Your task to perform on an android device: Search for pizza restaurants on Maps Image 0: 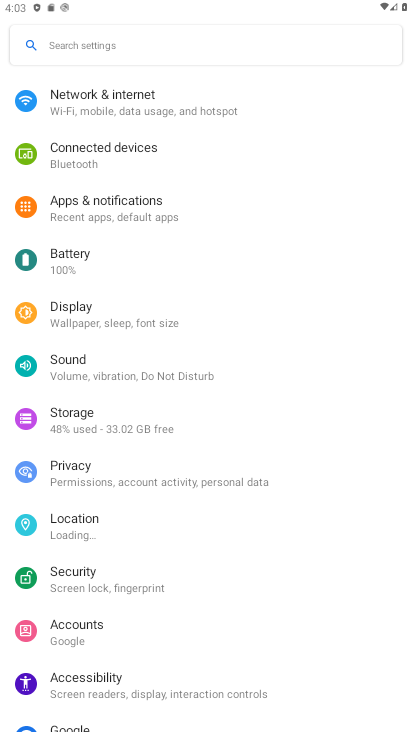
Step 0: drag from (230, 539) to (179, 223)
Your task to perform on an android device: Search for pizza restaurants on Maps Image 1: 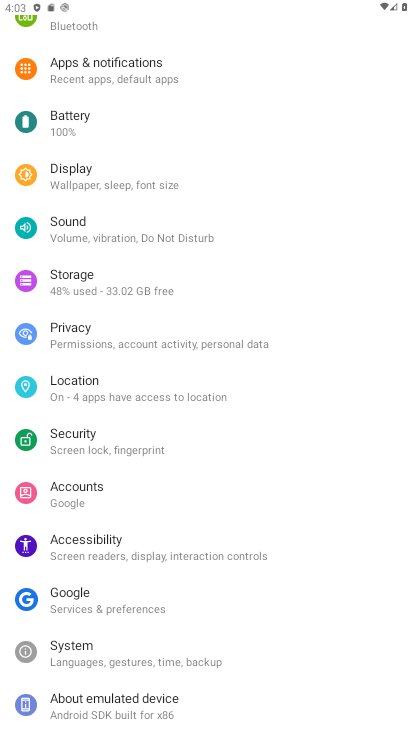
Step 1: press back button
Your task to perform on an android device: Search for pizza restaurants on Maps Image 2: 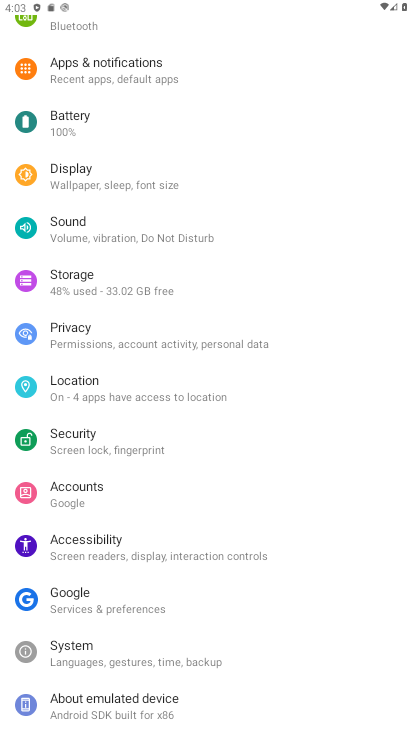
Step 2: press back button
Your task to perform on an android device: Search for pizza restaurants on Maps Image 3: 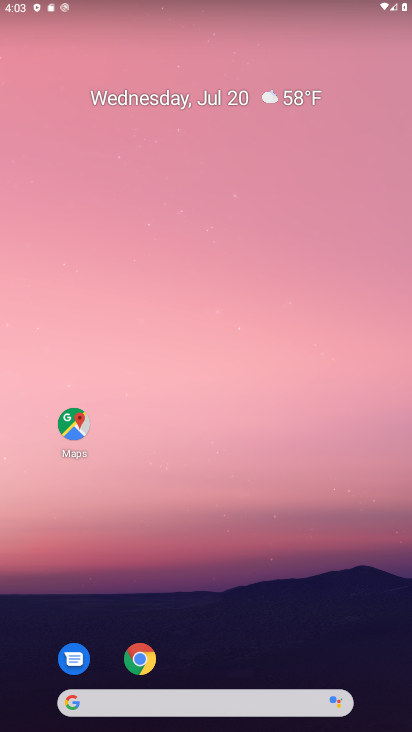
Step 3: drag from (212, 610) to (168, 121)
Your task to perform on an android device: Search for pizza restaurants on Maps Image 4: 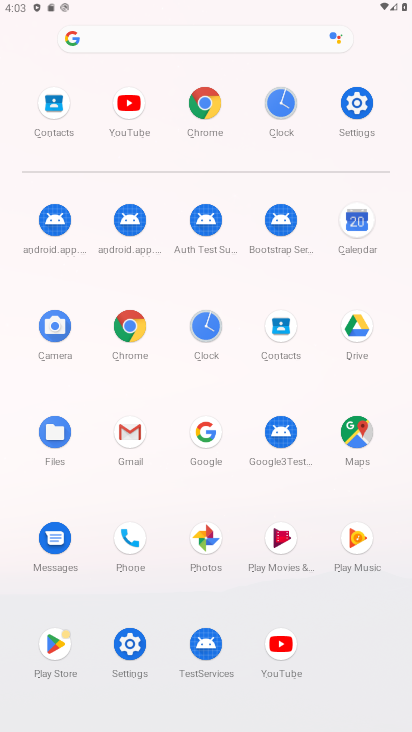
Step 4: click (354, 442)
Your task to perform on an android device: Search for pizza restaurants on Maps Image 5: 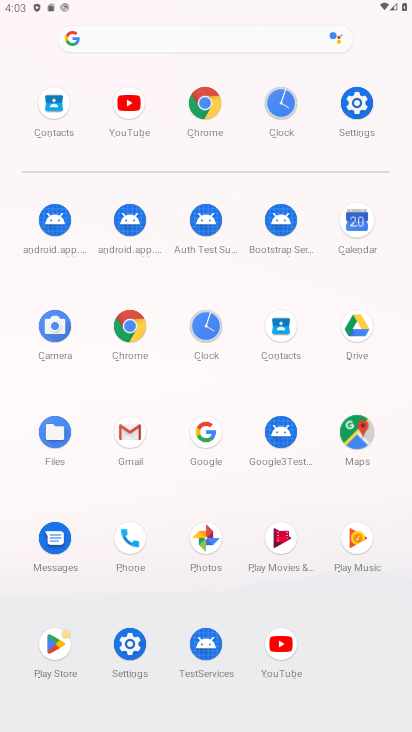
Step 5: click (360, 437)
Your task to perform on an android device: Search for pizza restaurants on Maps Image 6: 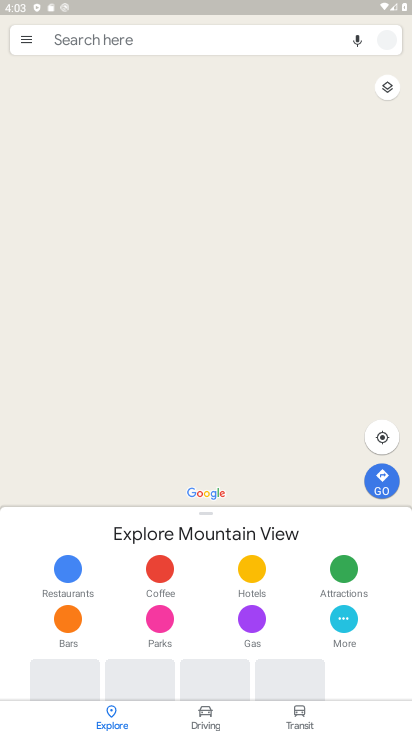
Step 6: click (74, 30)
Your task to perform on an android device: Search for pizza restaurants on Maps Image 7: 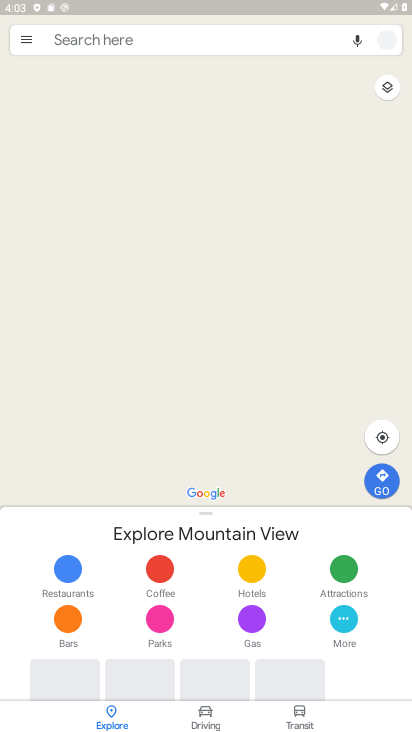
Step 7: click (74, 30)
Your task to perform on an android device: Search for pizza restaurants on Maps Image 8: 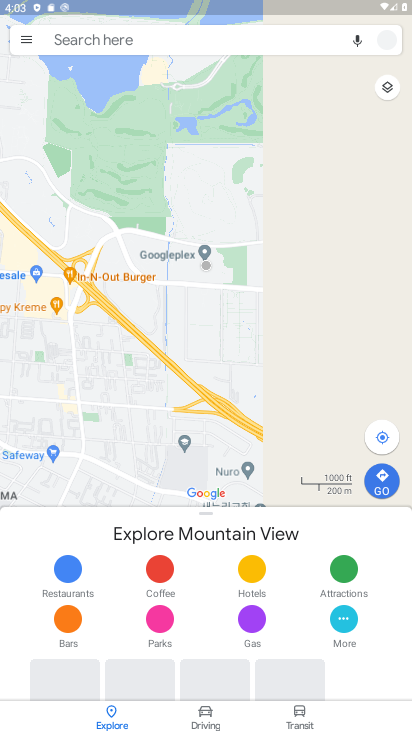
Step 8: click (70, 28)
Your task to perform on an android device: Search for pizza restaurants on Maps Image 9: 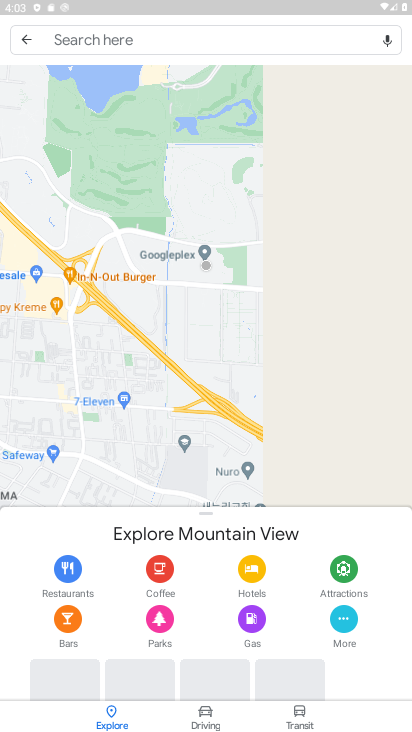
Step 9: click (71, 38)
Your task to perform on an android device: Search for pizza restaurants on Maps Image 10: 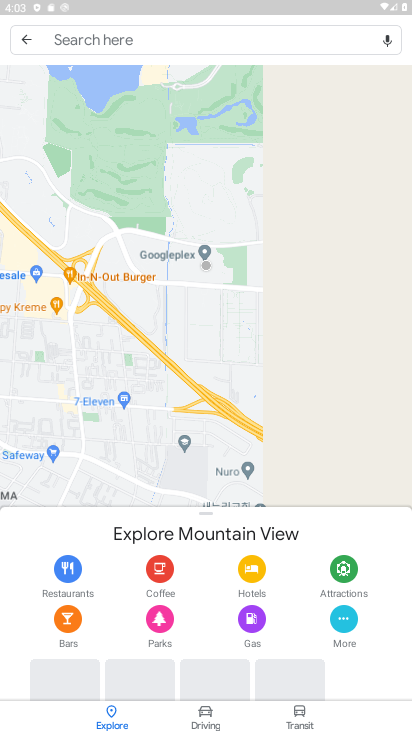
Step 10: click (74, 38)
Your task to perform on an android device: Search for pizza restaurants on Maps Image 11: 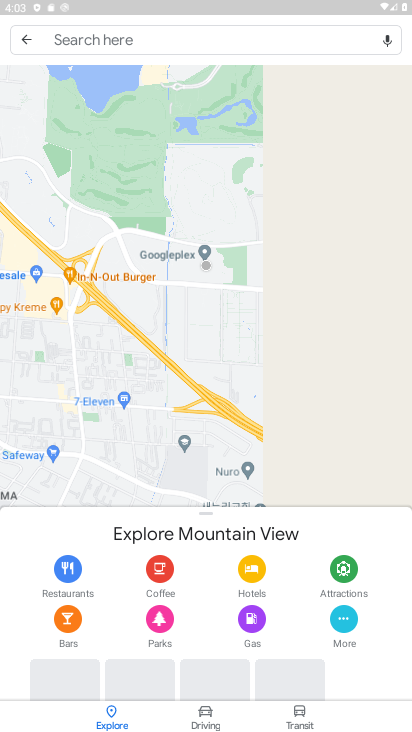
Step 11: click (76, 37)
Your task to perform on an android device: Search for pizza restaurants on Maps Image 12: 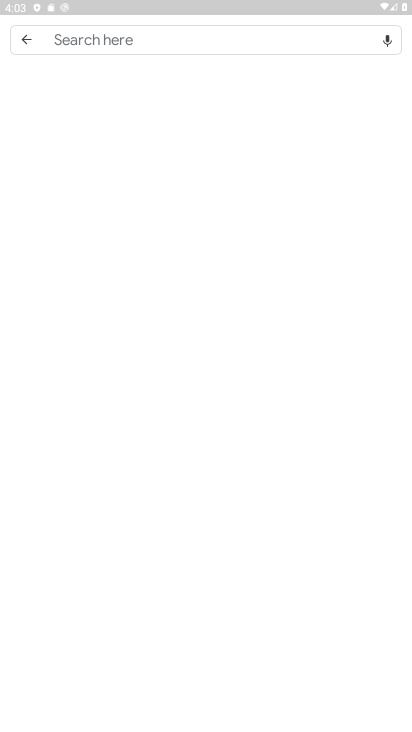
Step 12: click (71, 43)
Your task to perform on an android device: Search for pizza restaurants on Maps Image 13: 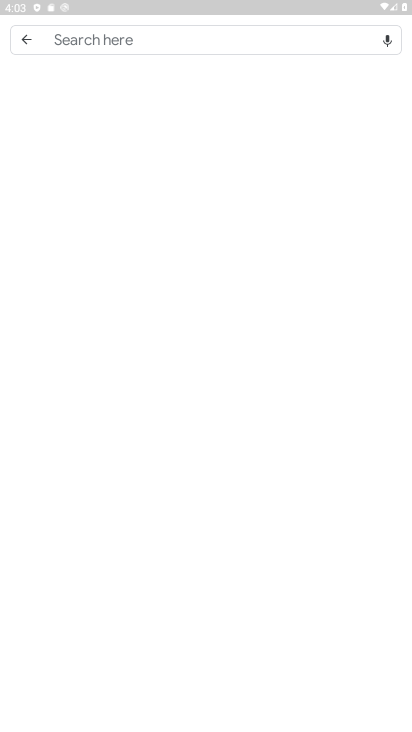
Step 13: click (65, 42)
Your task to perform on an android device: Search for pizza restaurants on Maps Image 14: 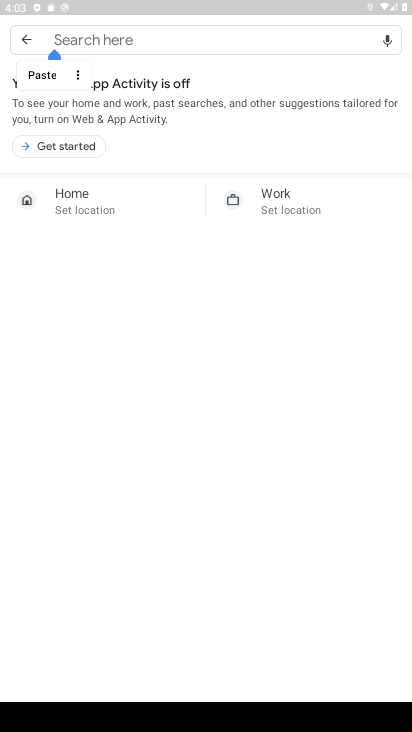
Step 14: click (72, 41)
Your task to perform on an android device: Search for pizza restaurants on Maps Image 15: 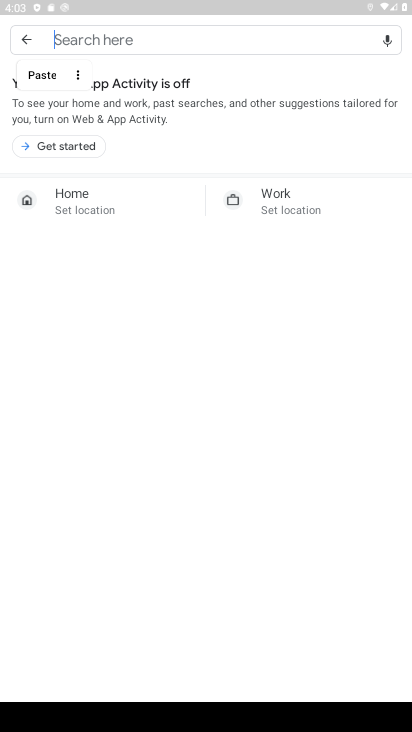
Step 15: click (83, 37)
Your task to perform on an android device: Search for pizza restaurants on Maps Image 16: 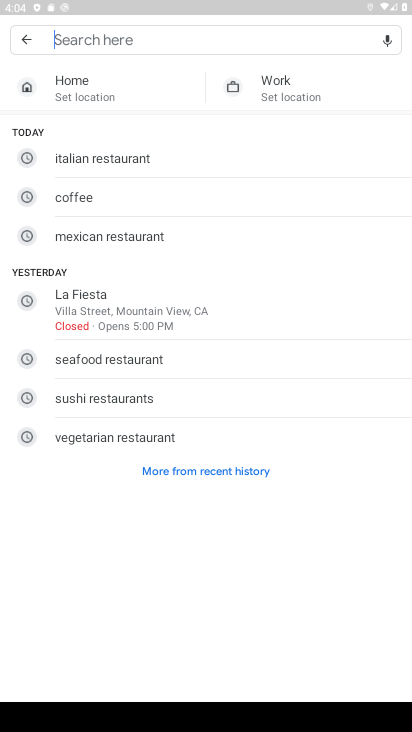
Step 16: type "pizza restaurants"
Your task to perform on an android device: Search for pizza restaurants on Maps Image 17: 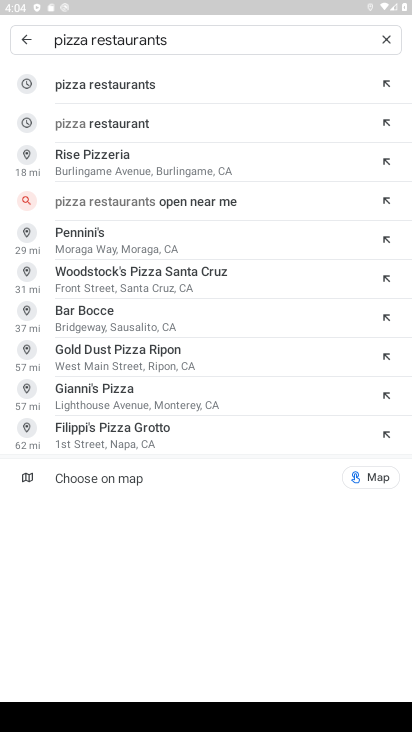
Step 17: click (130, 79)
Your task to perform on an android device: Search for pizza restaurants on Maps Image 18: 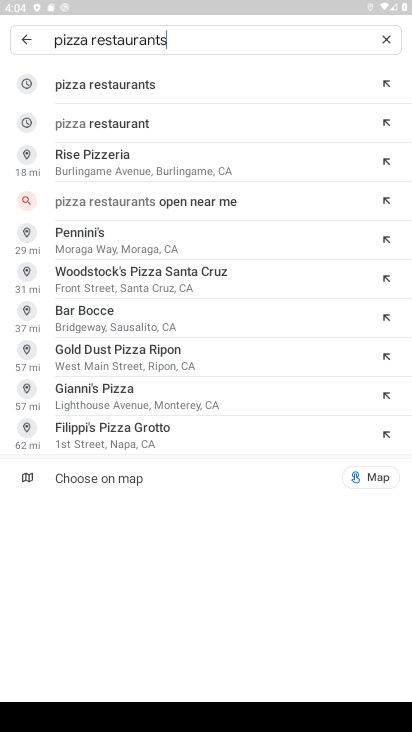
Step 18: click (132, 81)
Your task to perform on an android device: Search for pizza restaurants on Maps Image 19: 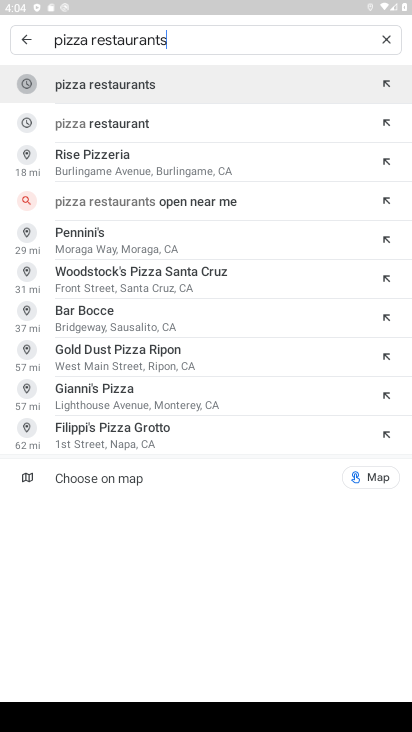
Step 19: click (133, 81)
Your task to perform on an android device: Search for pizza restaurants on Maps Image 20: 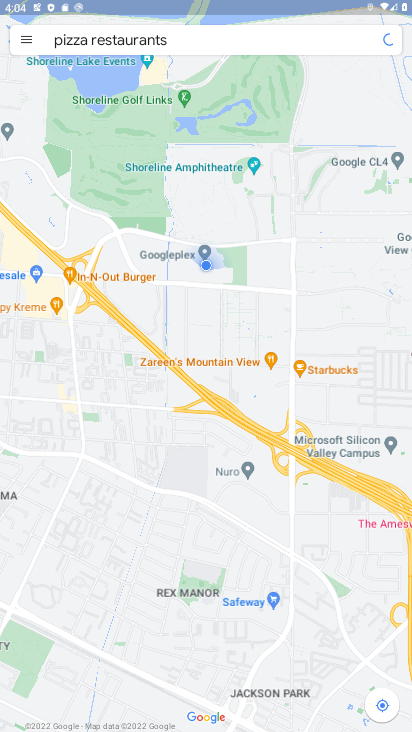
Step 20: task complete